Your task to perform on an android device: Find coffee shops on Maps Image 0: 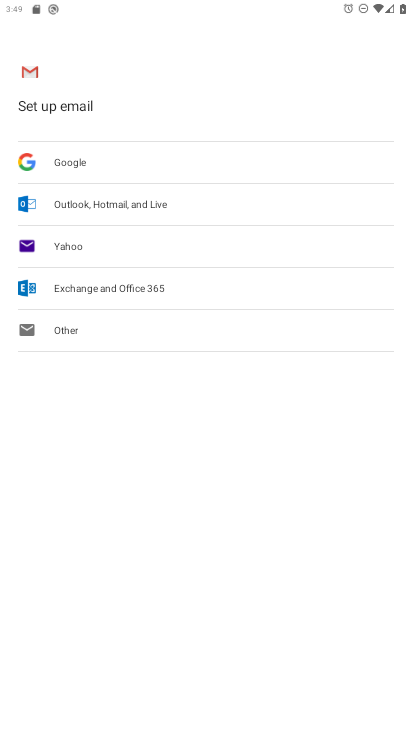
Step 0: press home button
Your task to perform on an android device: Find coffee shops on Maps Image 1: 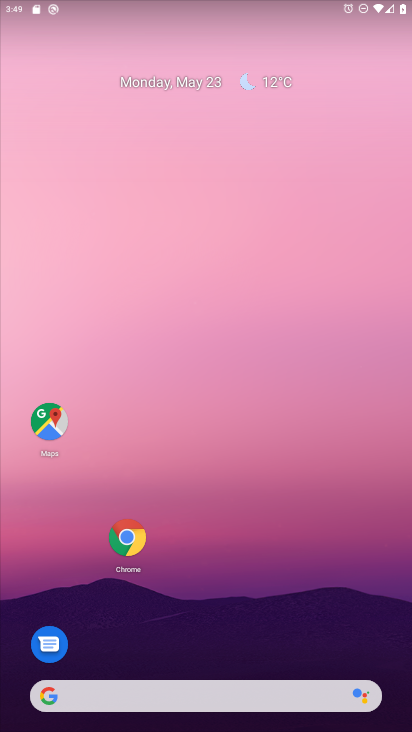
Step 1: drag from (281, 569) to (282, 95)
Your task to perform on an android device: Find coffee shops on Maps Image 2: 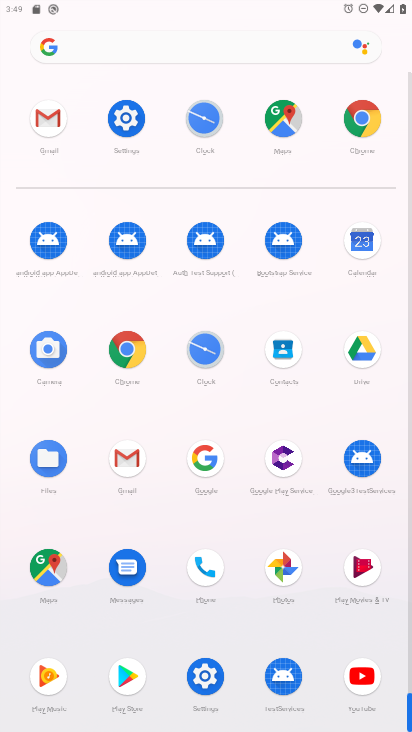
Step 2: click (287, 116)
Your task to perform on an android device: Find coffee shops on Maps Image 3: 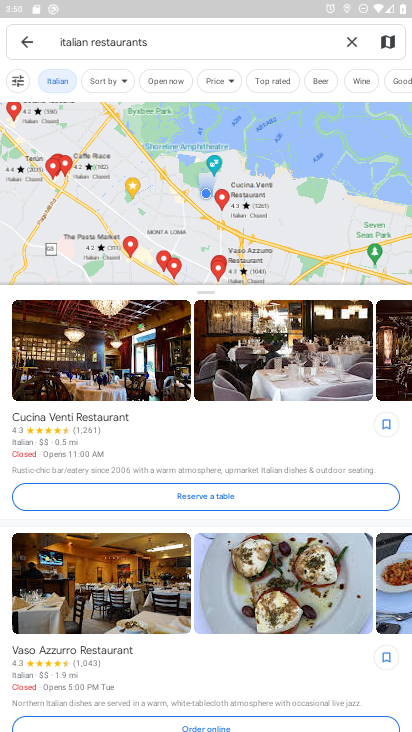
Step 3: click (263, 28)
Your task to perform on an android device: Find coffee shops on Maps Image 4: 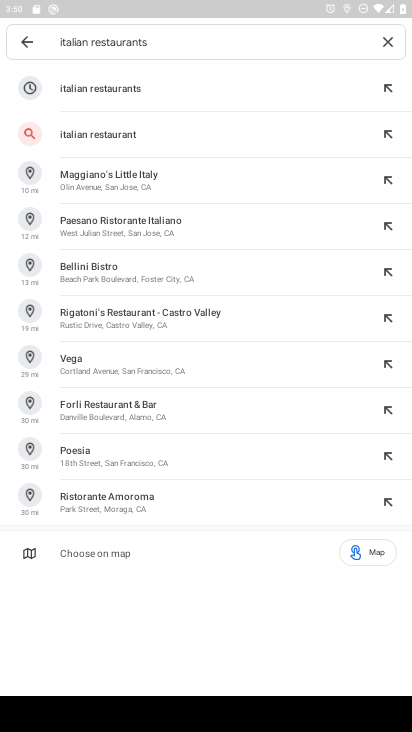
Step 4: click (381, 42)
Your task to perform on an android device: Find coffee shops on Maps Image 5: 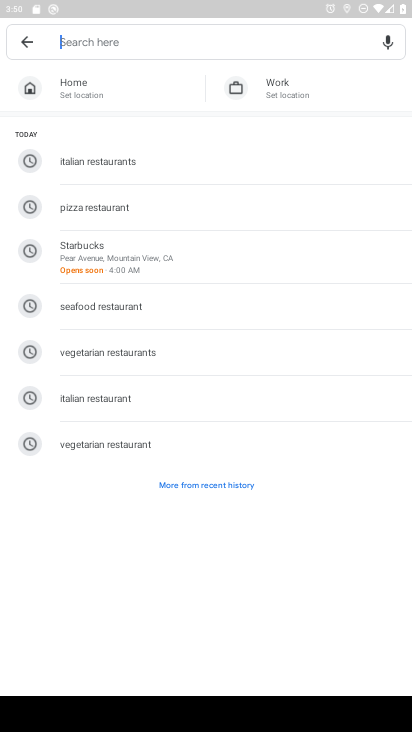
Step 5: type "coffee shops"
Your task to perform on an android device: Find coffee shops on Maps Image 6: 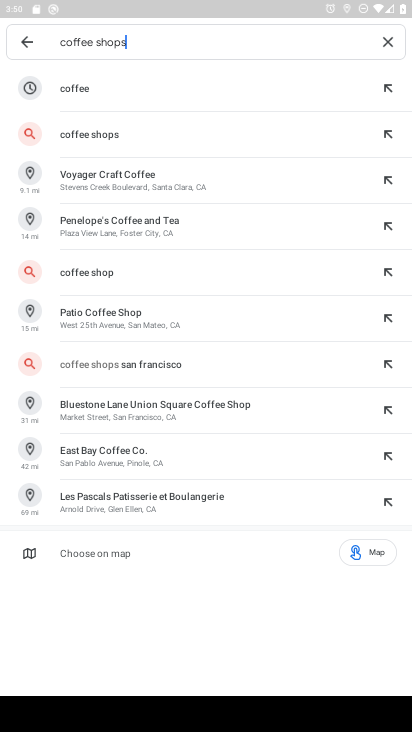
Step 6: click (69, 136)
Your task to perform on an android device: Find coffee shops on Maps Image 7: 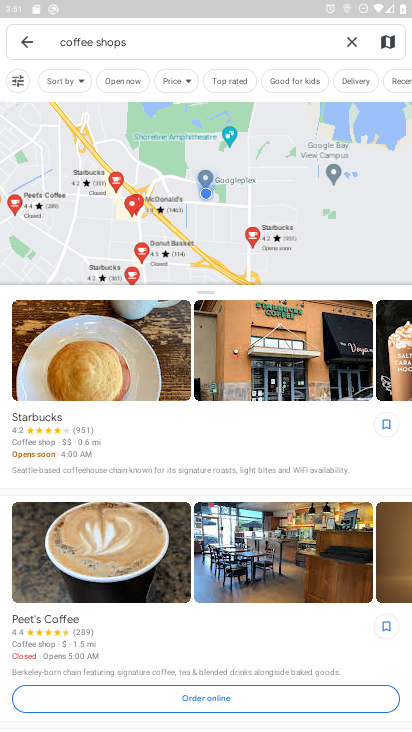
Step 7: task complete